Your task to perform on an android device: Open the stopwatch Image 0: 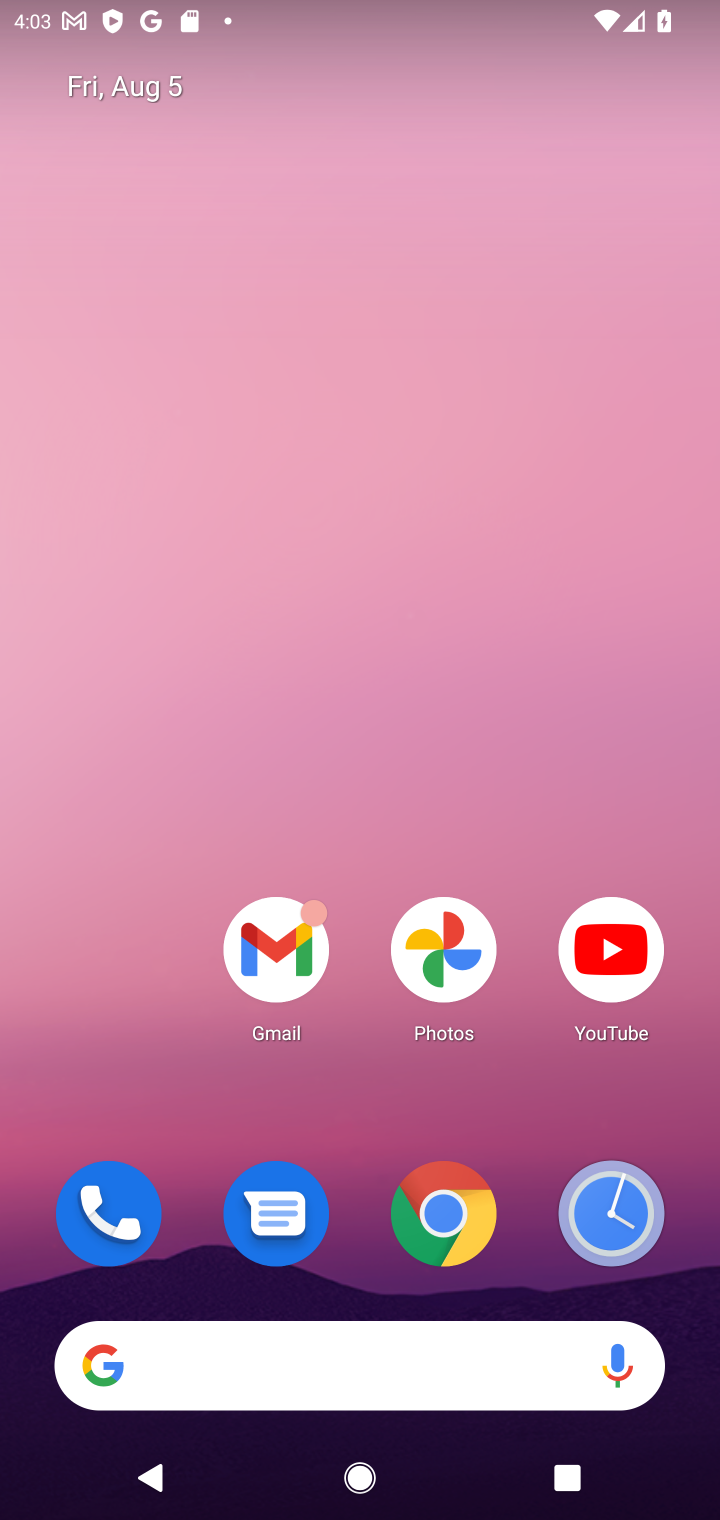
Step 0: click (600, 1229)
Your task to perform on an android device: Open the stopwatch Image 1: 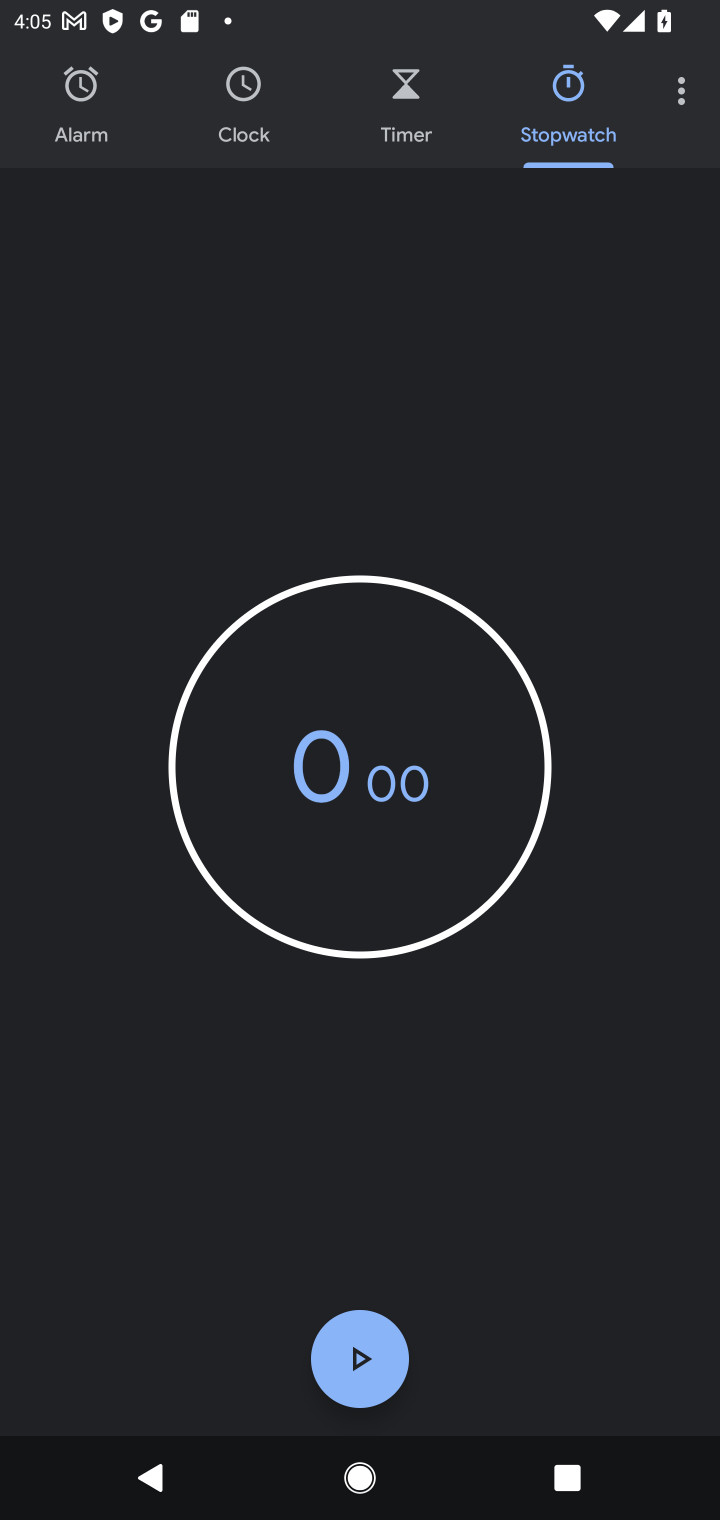
Step 1: task complete